Your task to perform on an android device: When is my next appointment? Image 0: 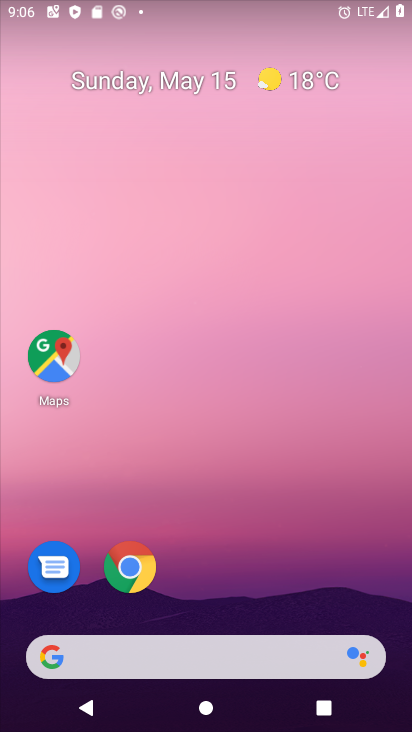
Step 0: drag from (258, 706) to (301, 43)
Your task to perform on an android device: When is my next appointment? Image 1: 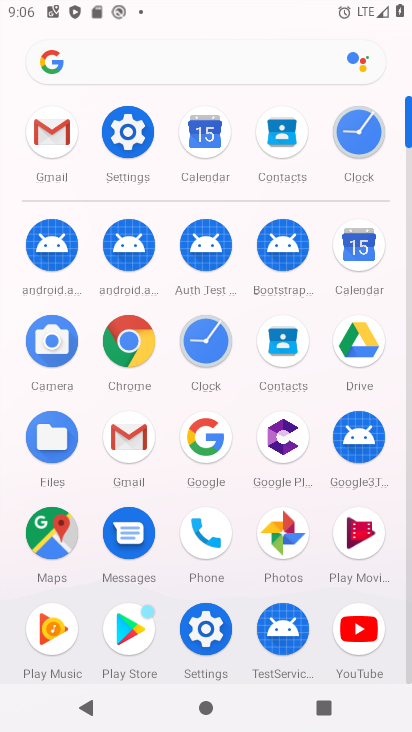
Step 1: click (352, 245)
Your task to perform on an android device: When is my next appointment? Image 2: 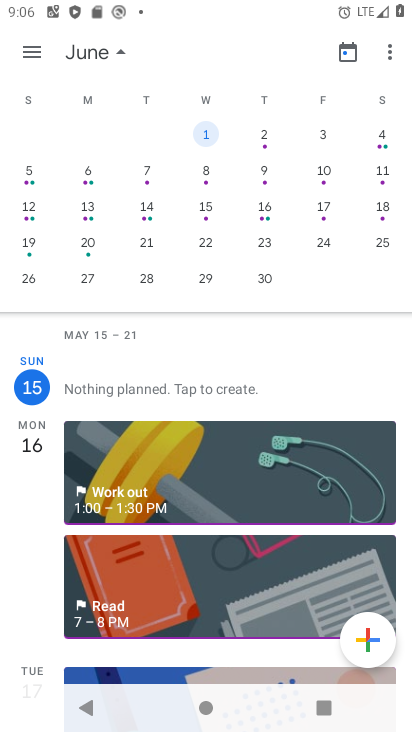
Step 2: click (100, 55)
Your task to perform on an android device: When is my next appointment? Image 3: 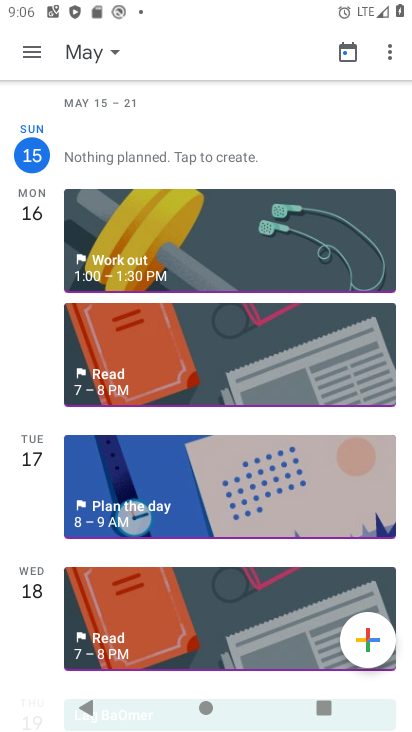
Step 3: click (23, 44)
Your task to perform on an android device: When is my next appointment? Image 4: 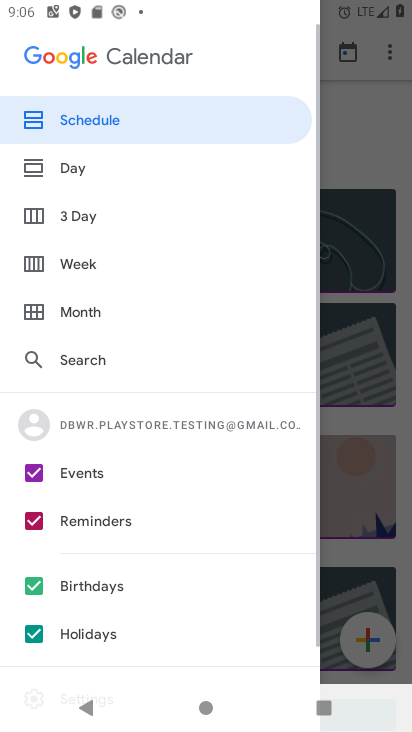
Step 4: click (65, 125)
Your task to perform on an android device: When is my next appointment? Image 5: 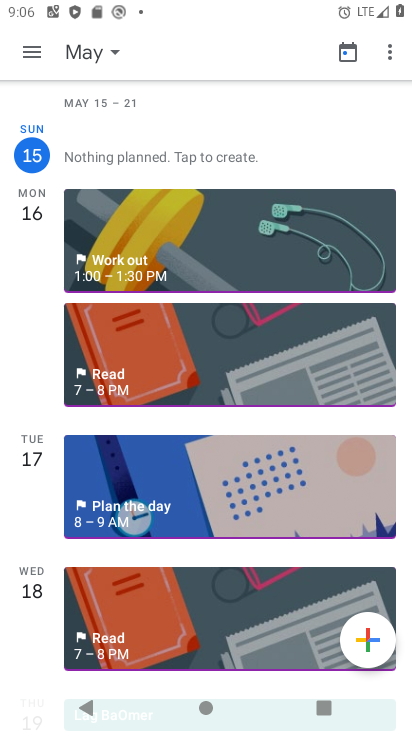
Step 5: task complete